Your task to perform on an android device: Is it going to rain today? Image 0: 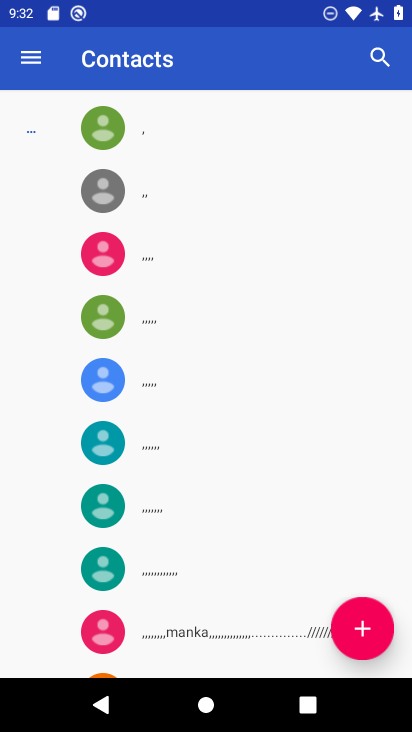
Step 0: press home button
Your task to perform on an android device: Is it going to rain today? Image 1: 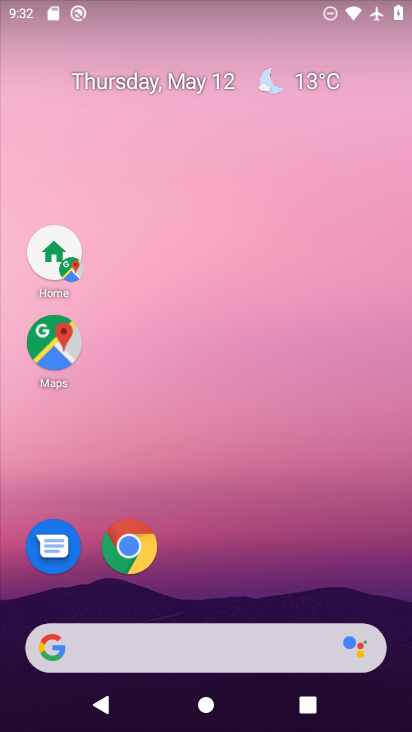
Step 1: click (321, 80)
Your task to perform on an android device: Is it going to rain today? Image 2: 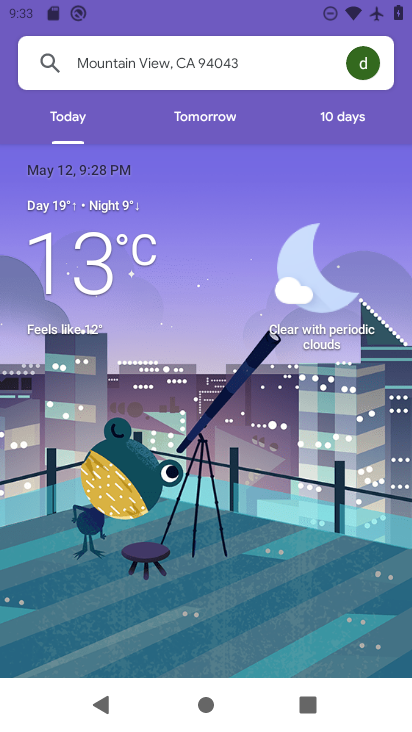
Step 2: task complete